Your task to perform on an android device: turn pop-ups off in chrome Image 0: 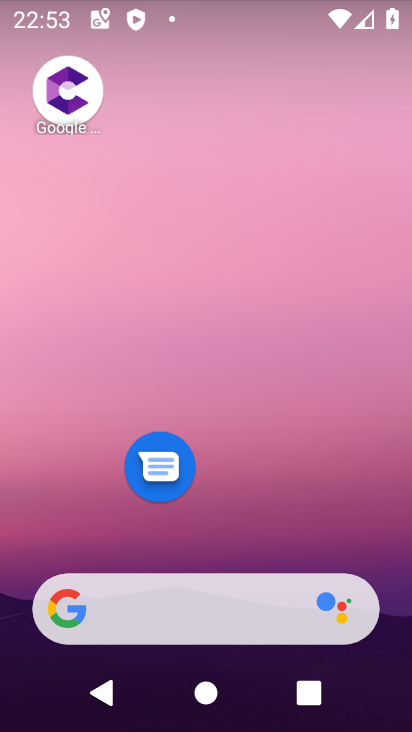
Step 0: drag from (275, 516) to (284, 24)
Your task to perform on an android device: turn pop-ups off in chrome Image 1: 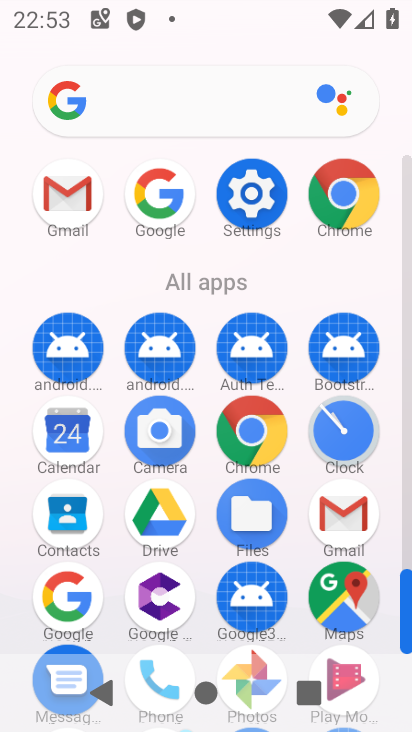
Step 1: click (349, 188)
Your task to perform on an android device: turn pop-ups off in chrome Image 2: 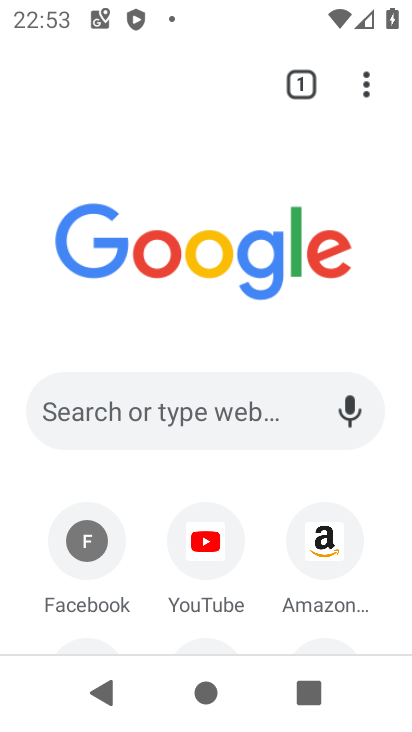
Step 2: click (361, 89)
Your task to perform on an android device: turn pop-ups off in chrome Image 3: 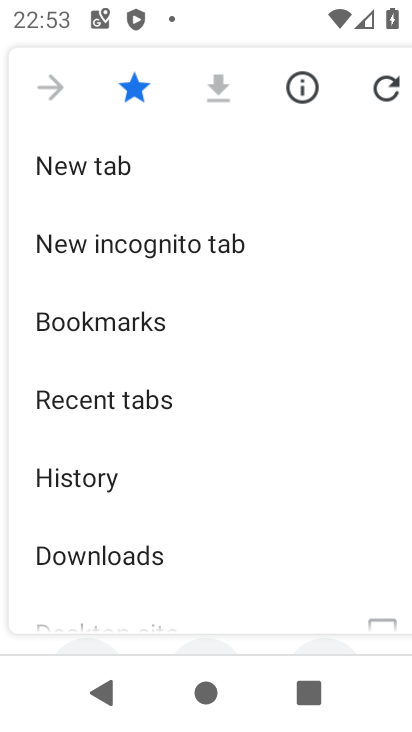
Step 3: drag from (278, 521) to (259, 15)
Your task to perform on an android device: turn pop-ups off in chrome Image 4: 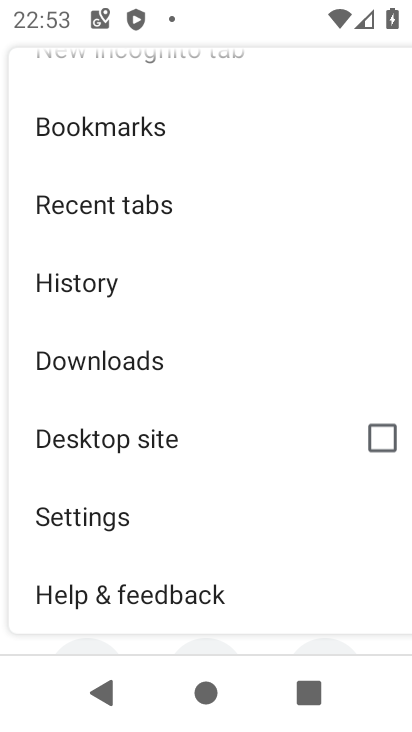
Step 4: click (103, 521)
Your task to perform on an android device: turn pop-ups off in chrome Image 5: 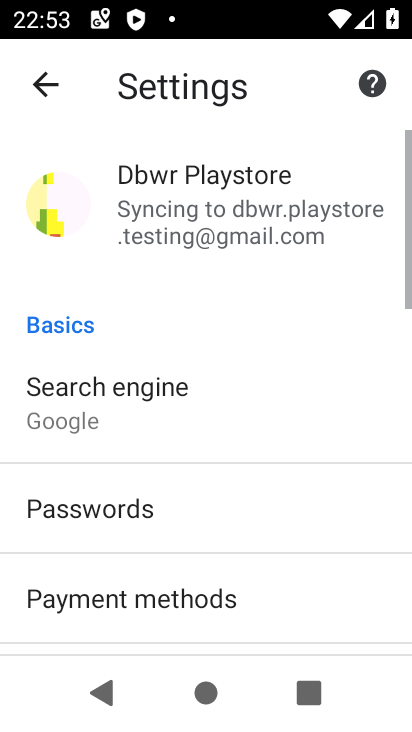
Step 5: drag from (282, 511) to (293, 121)
Your task to perform on an android device: turn pop-ups off in chrome Image 6: 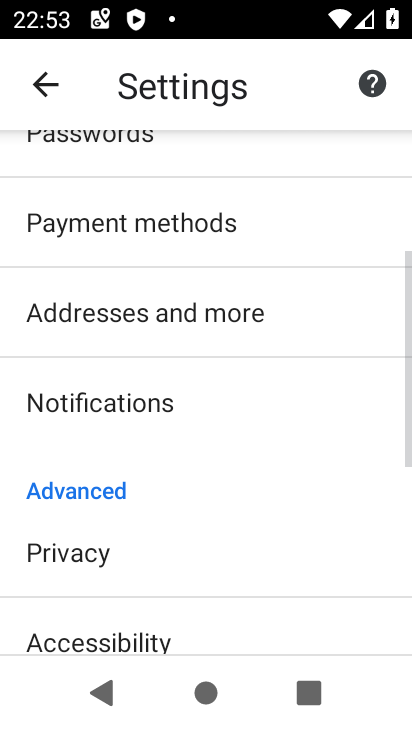
Step 6: drag from (252, 577) to (267, 357)
Your task to perform on an android device: turn pop-ups off in chrome Image 7: 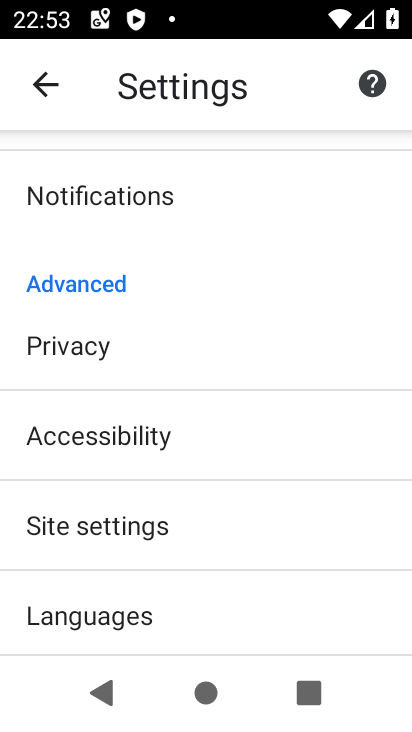
Step 7: click (133, 525)
Your task to perform on an android device: turn pop-ups off in chrome Image 8: 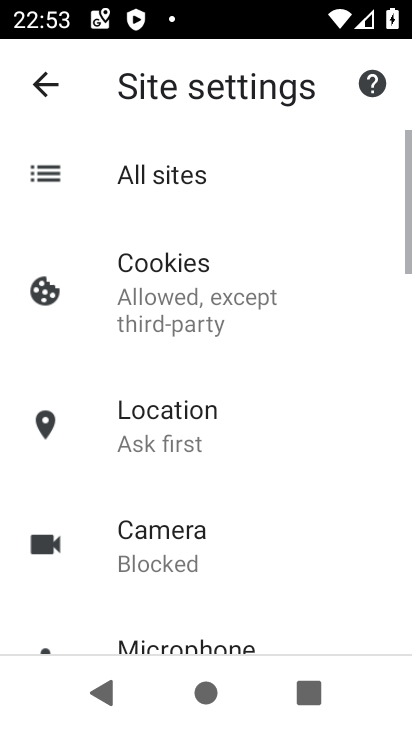
Step 8: drag from (318, 510) to (326, 117)
Your task to perform on an android device: turn pop-ups off in chrome Image 9: 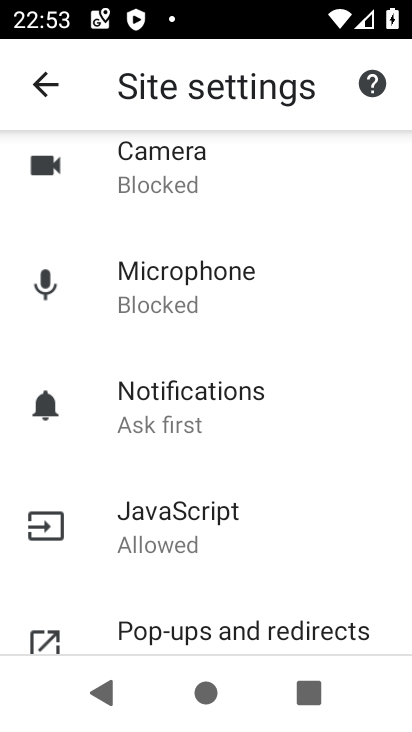
Step 9: drag from (232, 574) to (244, 178)
Your task to perform on an android device: turn pop-ups off in chrome Image 10: 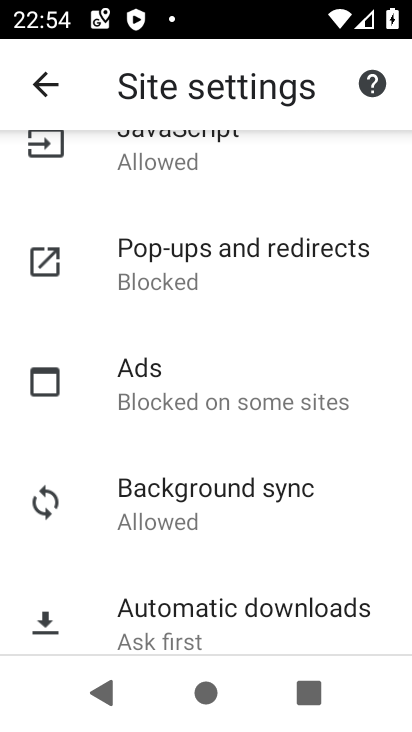
Step 10: click (241, 251)
Your task to perform on an android device: turn pop-ups off in chrome Image 11: 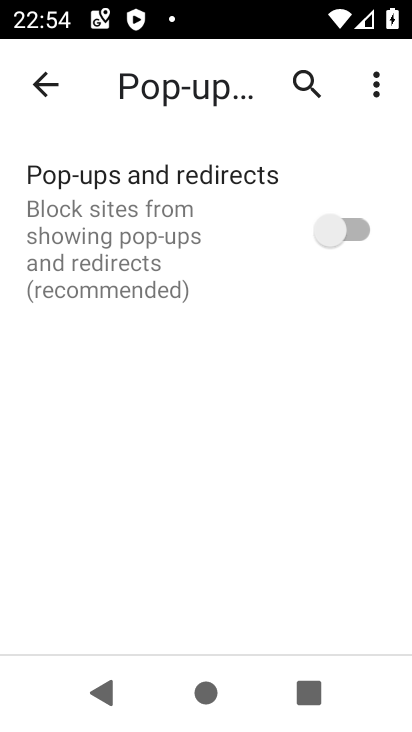
Step 11: task complete